Your task to perform on an android device: open a bookmark in the chrome app Image 0: 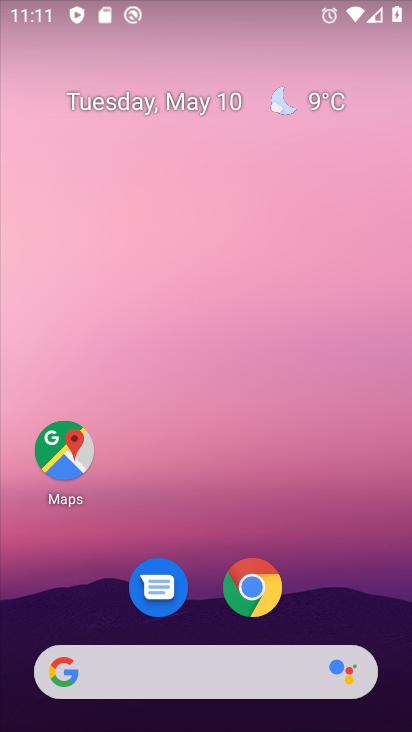
Step 0: click (257, 596)
Your task to perform on an android device: open a bookmark in the chrome app Image 1: 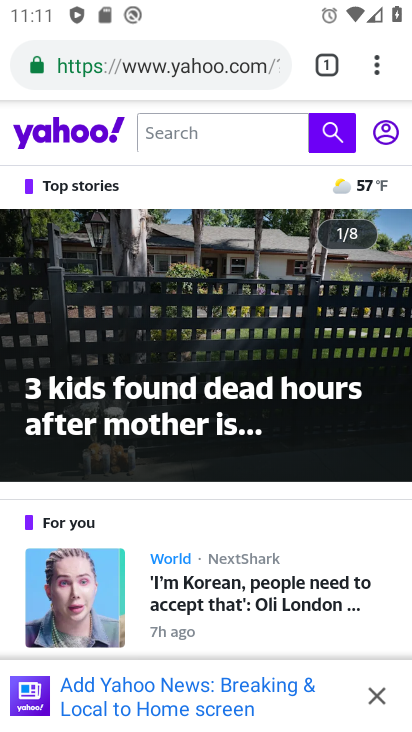
Step 1: drag from (375, 66) to (175, 234)
Your task to perform on an android device: open a bookmark in the chrome app Image 2: 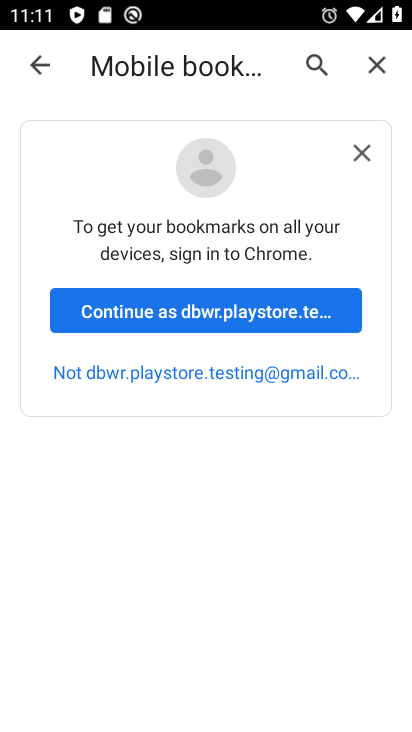
Step 2: click (183, 309)
Your task to perform on an android device: open a bookmark in the chrome app Image 3: 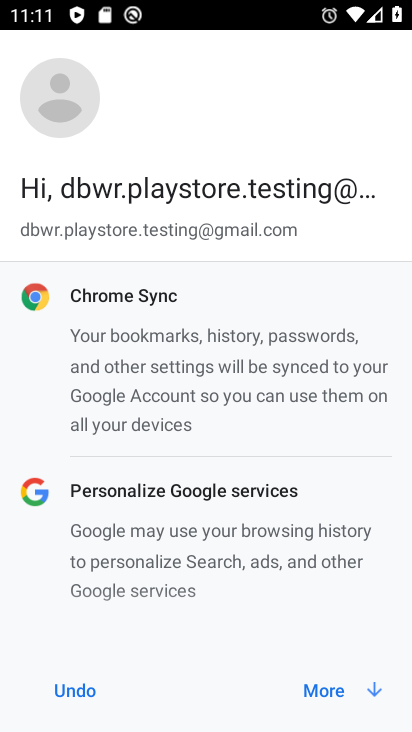
Step 3: click (315, 696)
Your task to perform on an android device: open a bookmark in the chrome app Image 4: 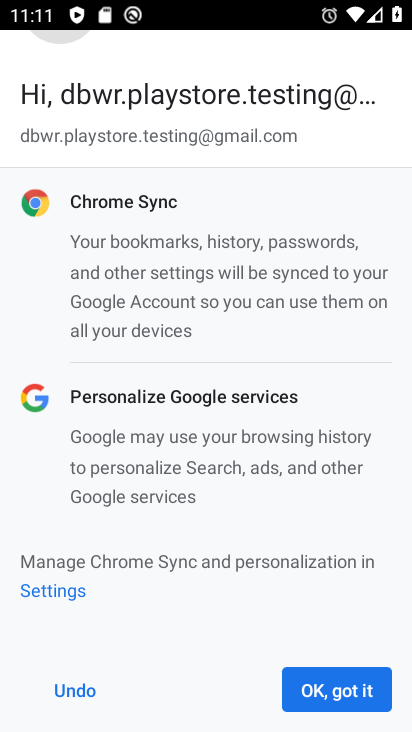
Step 4: click (315, 696)
Your task to perform on an android device: open a bookmark in the chrome app Image 5: 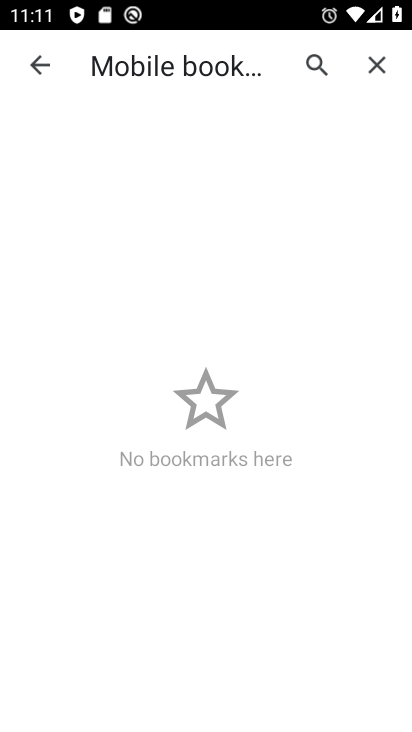
Step 5: task complete